Your task to perform on an android device: Go to Google maps Image 0: 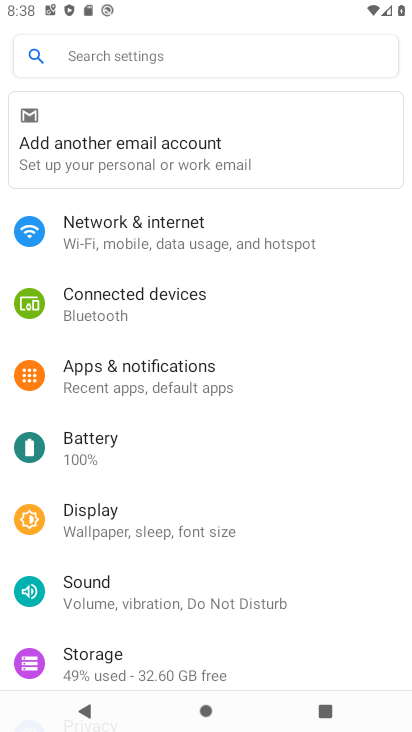
Step 0: press home button
Your task to perform on an android device: Go to Google maps Image 1: 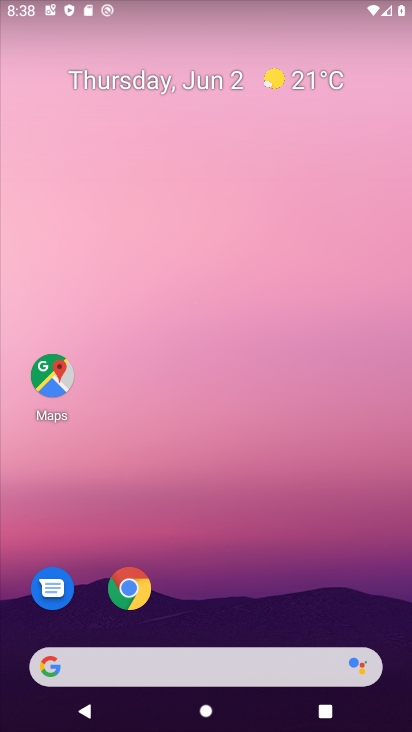
Step 1: click (57, 383)
Your task to perform on an android device: Go to Google maps Image 2: 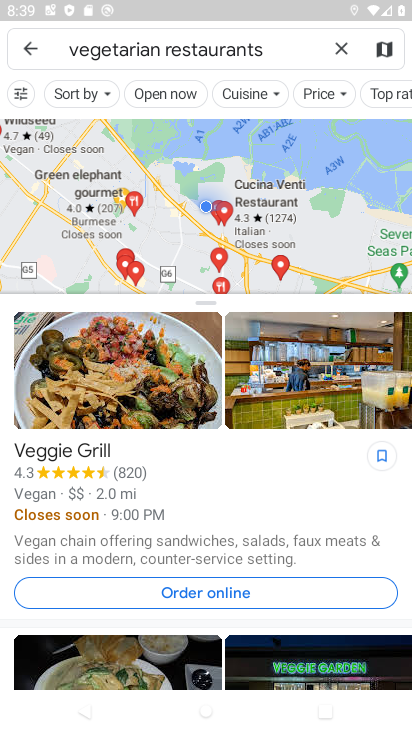
Step 2: task complete